Your task to perform on an android device: turn pop-ups on in chrome Image 0: 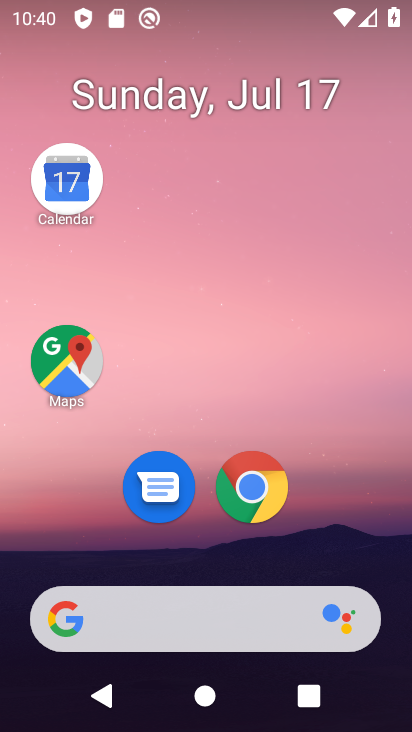
Step 0: drag from (288, 545) to (288, 228)
Your task to perform on an android device: turn pop-ups on in chrome Image 1: 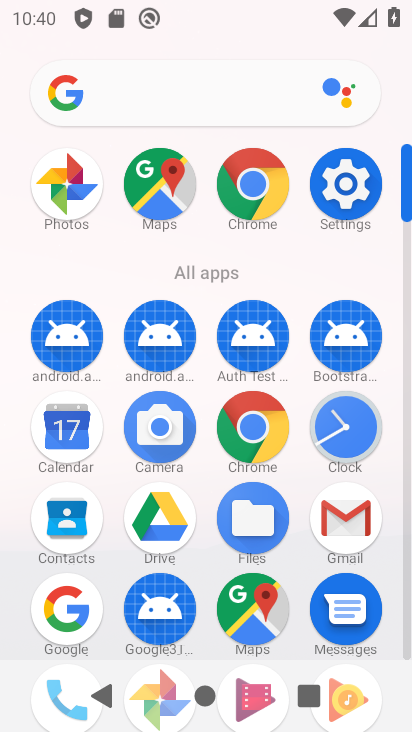
Step 1: click (266, 435)
Your task to perform on an android device: turn pop-ups on in chrome Image 2: 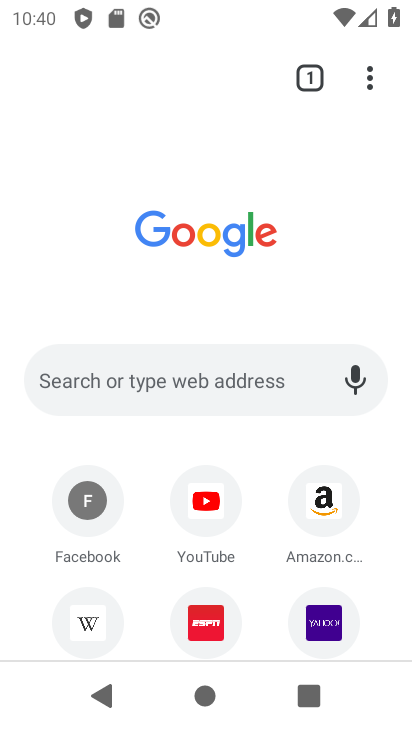
Step 2: click (385, 68)
Your task to perform on an android device: turn pop-ups on in chrome Image 3: 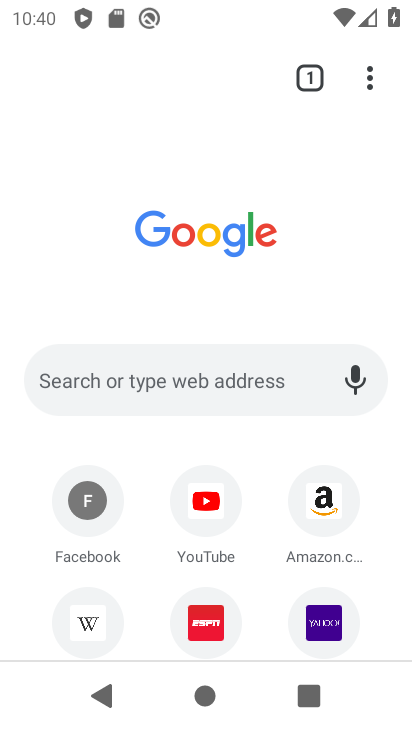
Step 3: click (362, 89)
Your task to perform on an android device: turn pop-ups on in chrome Image 4: 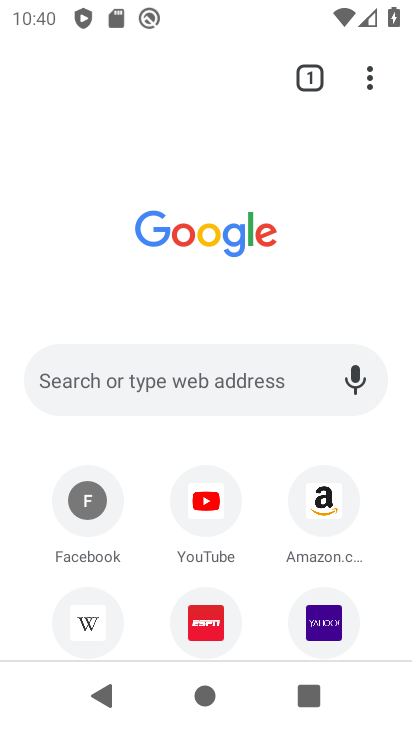
Step 4: click (372, 84)
Your task to perform on an android device: turn pop-ups on in chrome Image 5: 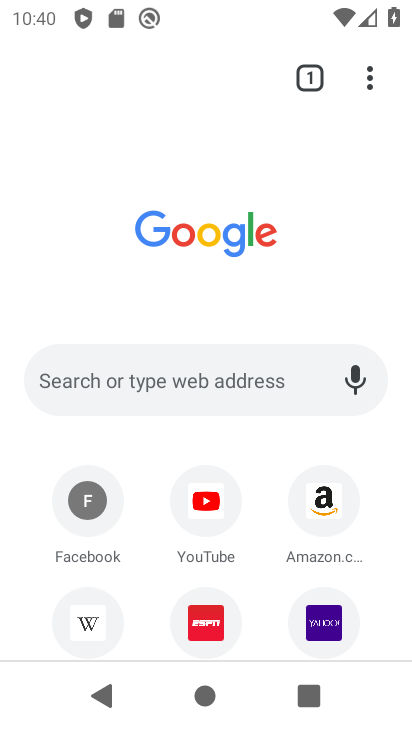
Step 5: click (362, 86)
Your task to perform on an android device: turn pop-ups on in chrome Image 6: 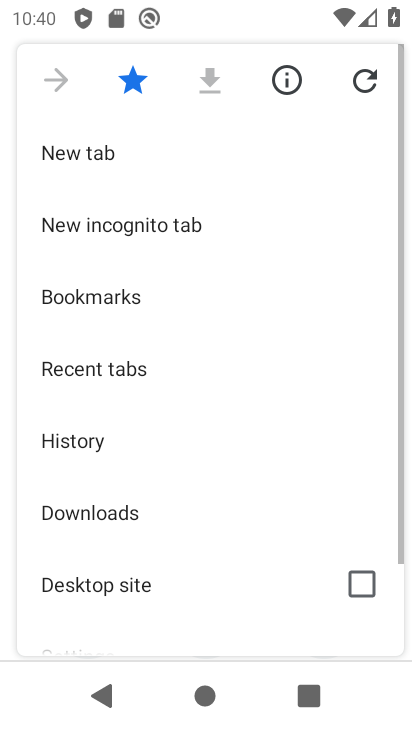
Step 6: drag from (159, 549) to (232, 233)
Your task to perform on an android device: turn pop-ups on in chrome Image 7: 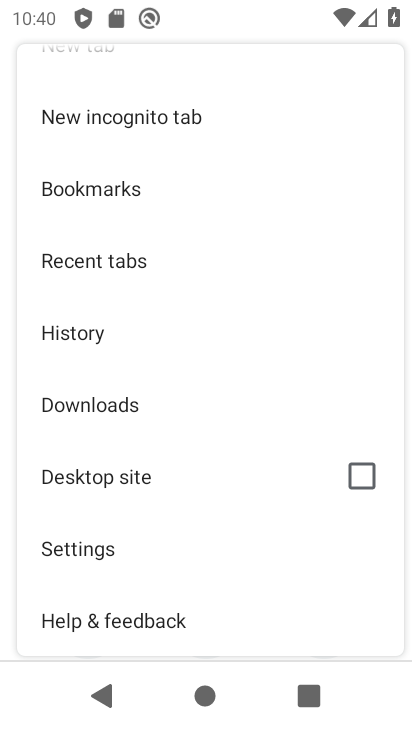
Step 7: drag from (266, 548) to (261, 275)
Your task to perform on an android device: turn pop-ups on in chrome Image 8: 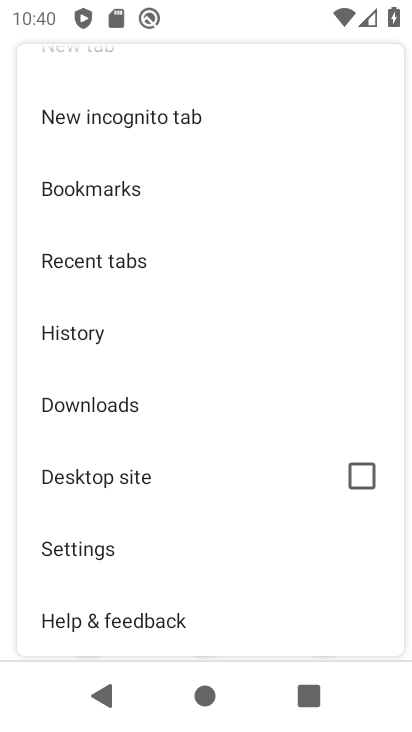
Step 8: click (182, 537)
Your task to perform on an android device: turn pop-ups on in chrome Image 9: 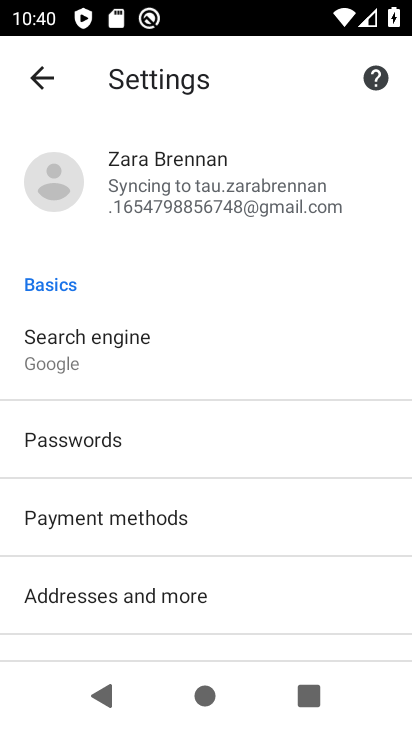
Step 9: drag from (182, 538) to (215, 238)
Your task to perform on an android device: turn pop-ups on in chrome Image 10: 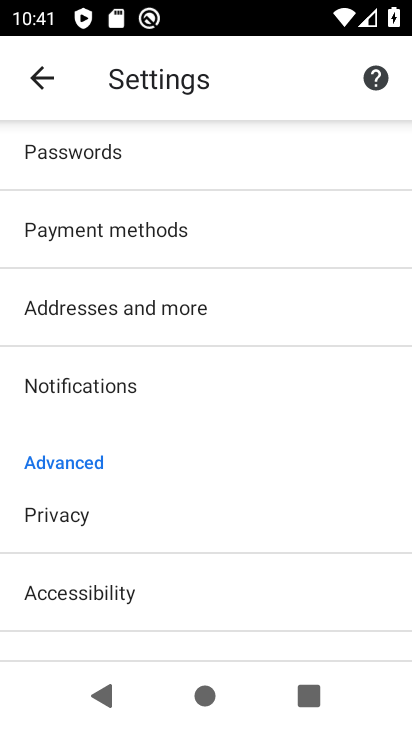
Step 10: drag from (158, 541) to (223, 217)
Your task to perform on an android device: turn pop-ups on in chrome Image 11: 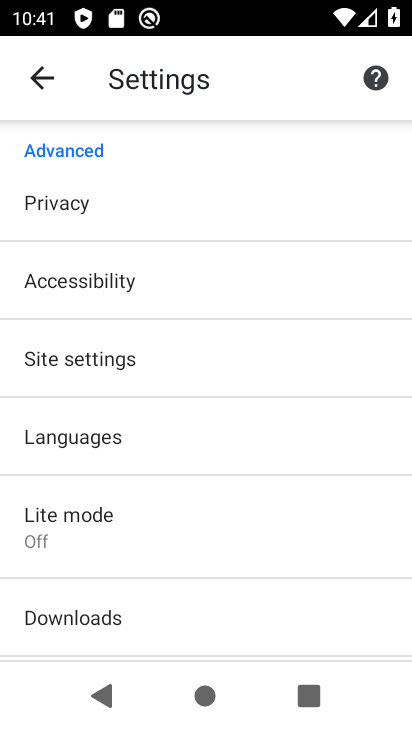
Step 11: click (210, 342)
Your task to perform on an android device: turn pop-ups on in chrome Image 12: 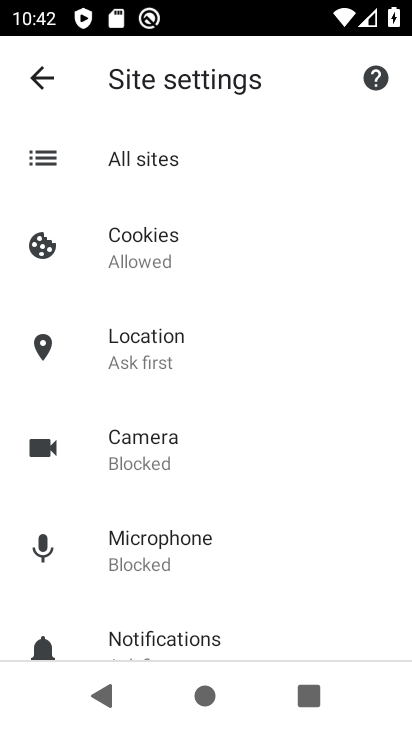
Step 12: drag from (248, 379) to (256, 160)
Your task to perform on an android device: turn pop-ups on in chrome Image 13: 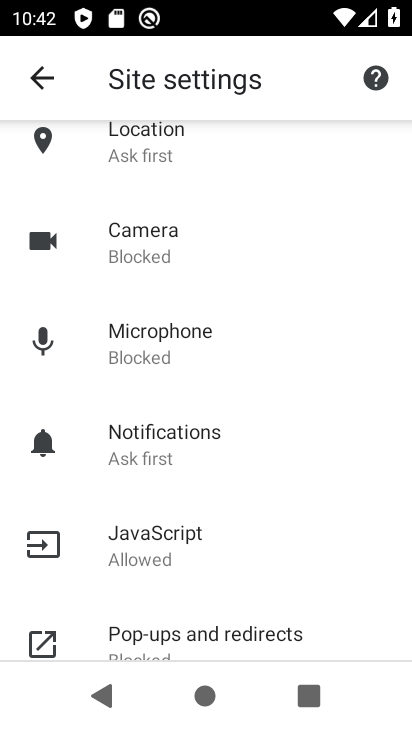
Step 13: drag from (273, 558) to (273, 254)
Your task to perform on an android device: turn pop-ups on in chrome Image 14: 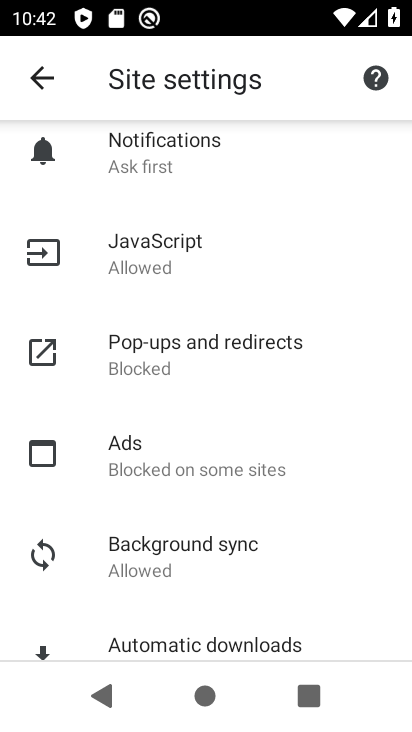
Step 14: click (167, 367)
Your task to perform on an android device: turn pop-ups on in chrome Image 15: 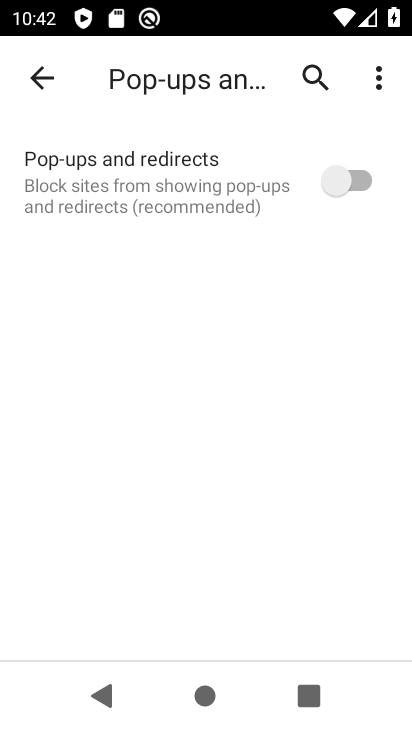
Step 15: click (331, 191)
Your task to perform on an android device: turn pop-ups on in chrome Image 16: 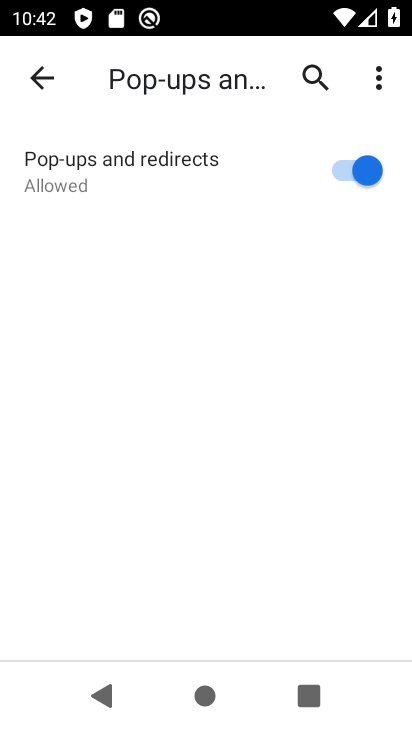
Step 16: task complete